Your task to perform on an android device: Open Google Chrome and click the shortcut for Amazon.com Image 0: 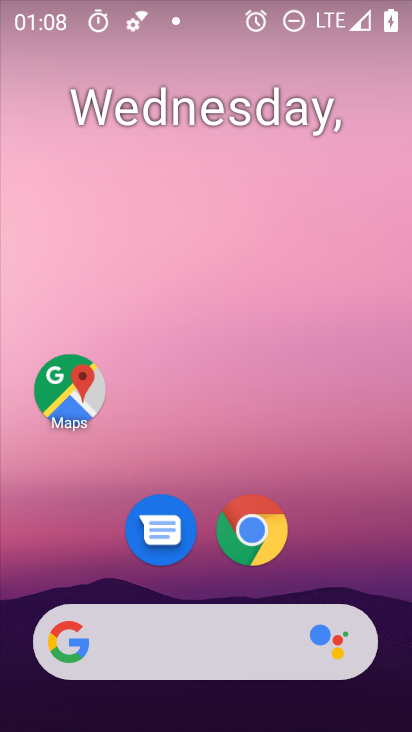
Step 0: drag from (335, 619) to (382, 6)
Your task to perform on an android device: Open Google Chrome and click the shortcut for Amazon.com Image 1: 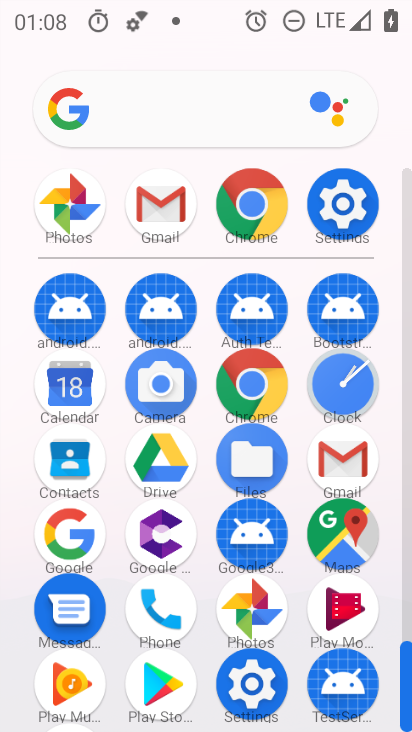
Step 1: click (237, 386)
Your task to perform on an android device: Open Google Chrome and click the shortcut for Amazon.com Image 2: 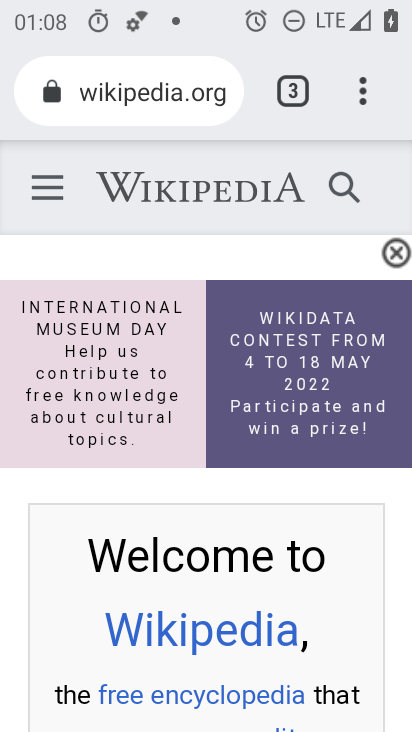
Step 2: click (294, 80)
Your task to perform on an android device: Open Google Chrome and click the shortcut for Amazon.com Image 3: 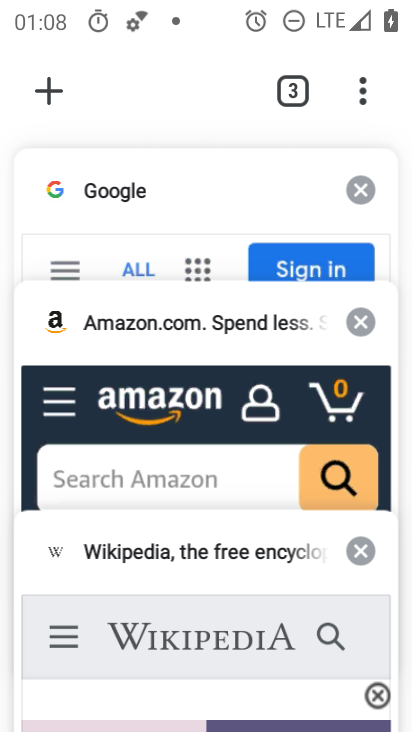
Step 3: click (187, 368)
Your task to perform on an android device: Open Google Chrome and click the shortcut for Amazon.com Image 4: 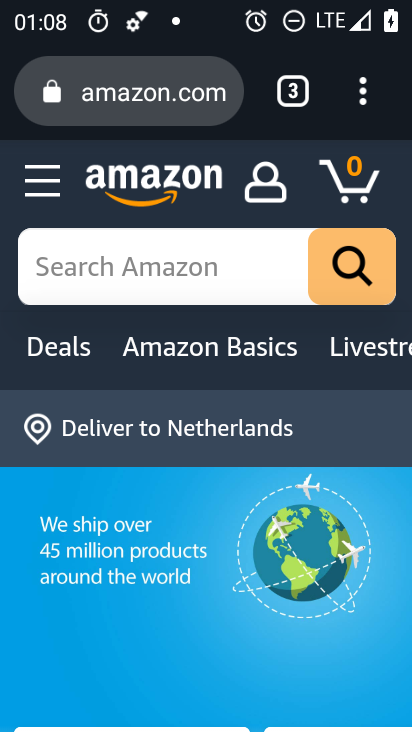
Step 4: click (364, 88)
Your task to perform on an android device: Open Google Chrome and click the shortcut for Amazon.com Image 5: 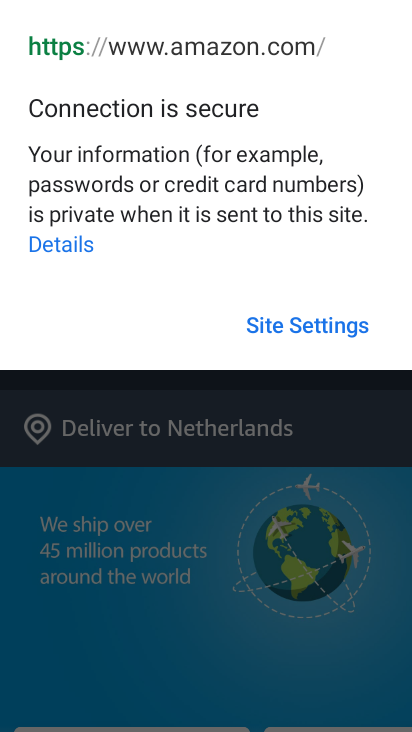
Step 5: drag from (405, 418) to (400, 311)
Your task to perform on an android device: Open Google Chrome and click the shortcut for Amazon.com Image 6: 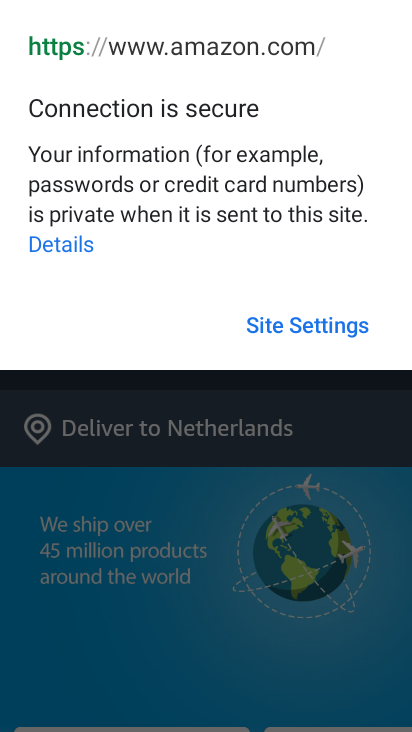
Step 6: drag from (381, 491) to (387, 99)
Your task to perform on an android device: Open Google Chrome and click the shortcut for Amazon.com Image 7: 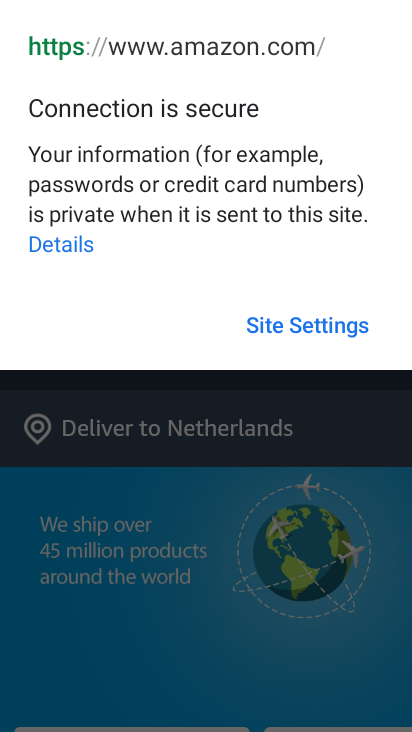
Step 7: click (340, 445)
Your task to perform on an android device: Open Google Chrome and click the shortcut for Amazon.com Image 8: 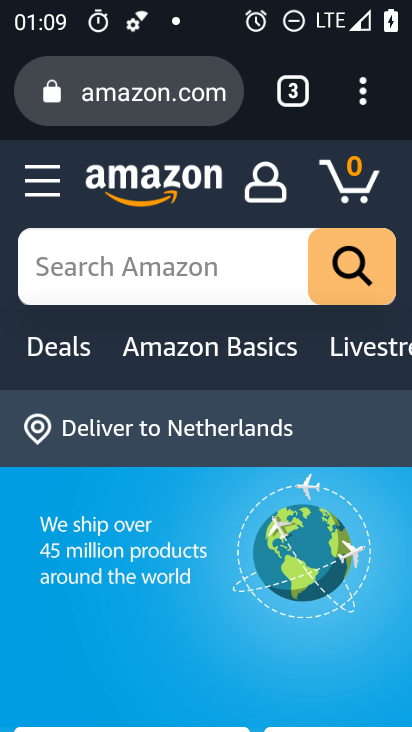
Step 8: drag from (340, 427) to (381, 157)
Your task to perform on an android device: Open Google Chrome and click the shortcut for Amazon.com Image 9: 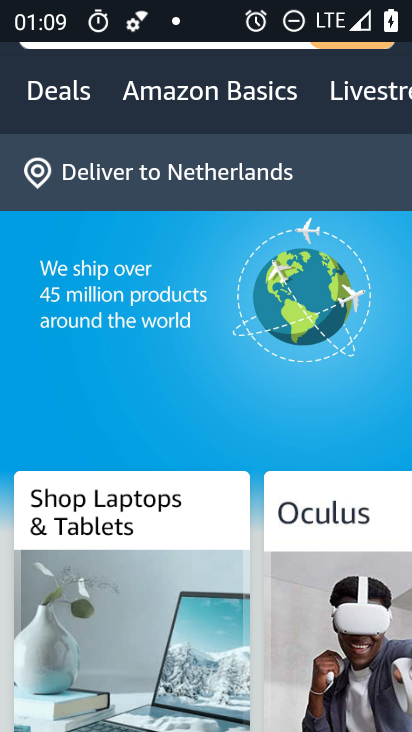
Step 9: drag from (372, 216) to (278, 205)
Your task to perform on an android device: Open Google Chrome and click the shortcut for Amazon.com Image 10: 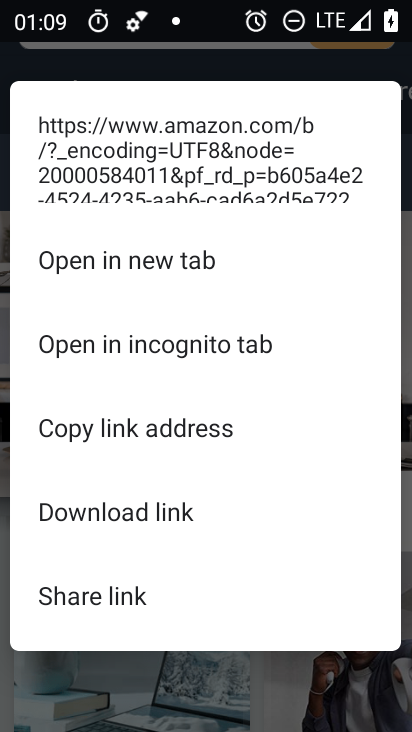
Step 10: drag from (262, 228) to (292, 115)
Your task to perform on an android device: Open Google Chrome and click the shortcut for Amazon.com Image 11: 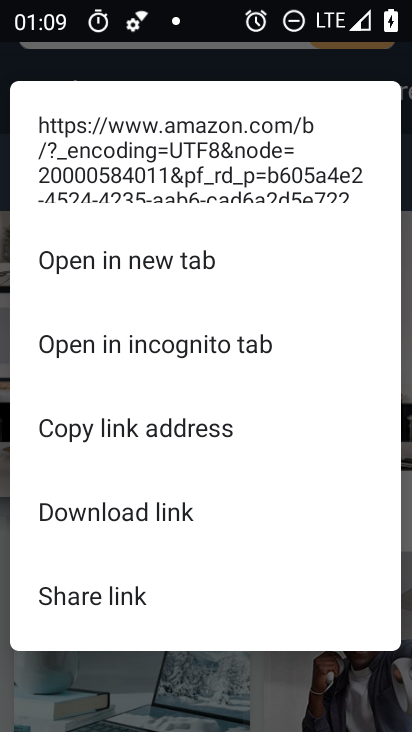
Step 11: drag from (292, 115) to (298, 243)
Your task to perform on an android device: Open Google Chrome and click the shortcut for Amazon.com Image 12: 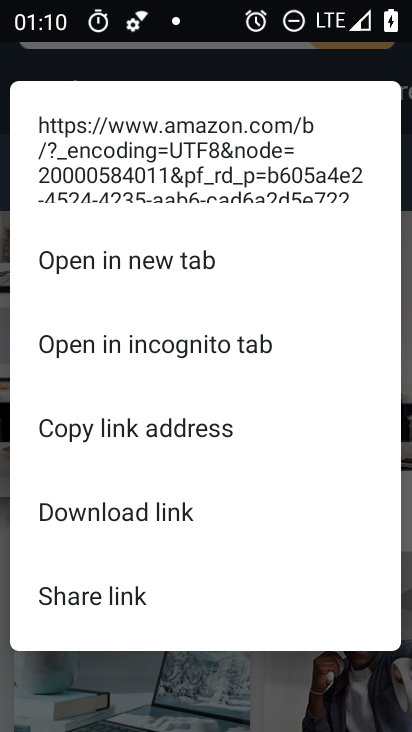
Step 12: press home button
Your task to perform on an android device: Open Google Chrome and click the shortcut for Amazon.com Image 13: 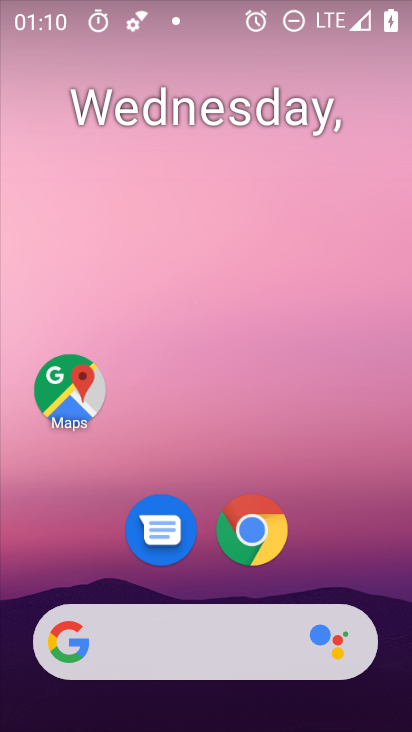
Step 13: drag from (301, 638) to (376, 38)
Your task to perform on an android device: Open Google Chrome and click the shortcut for Amazon.com Image 14: 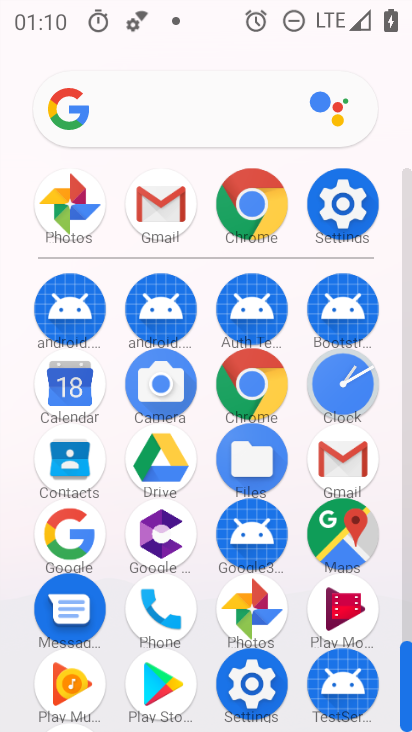
Step 14: click (256, 374)
Your task to perform on an android device: Open Google Chrome and click the shortcut for Amazon.com Image 15: 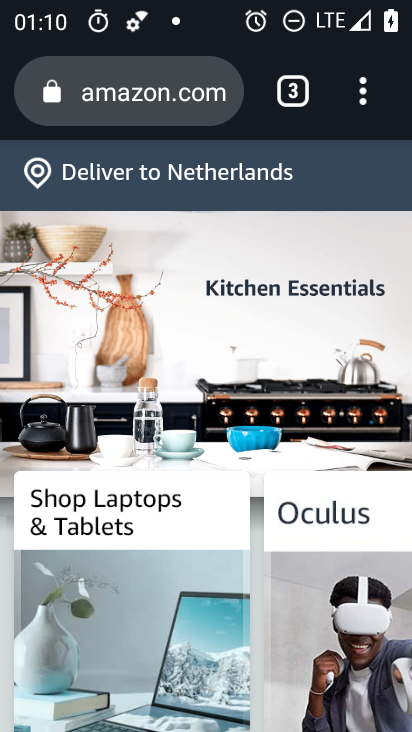
Step 15: click (354, 110)
Your task to perform on an android device: Open Google Chrome and click the shortcut for Amazon.com Image 16: 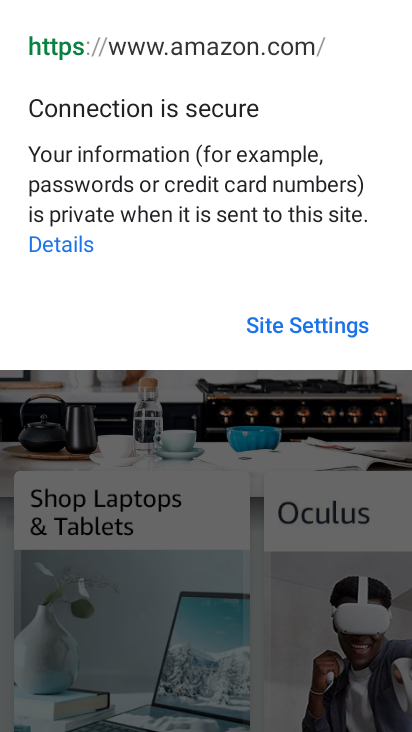
Step 16: click (314, 467)
Your task to perform on an android device: Open Google Chrome and click the shortcut for Amazon.com Image 17: 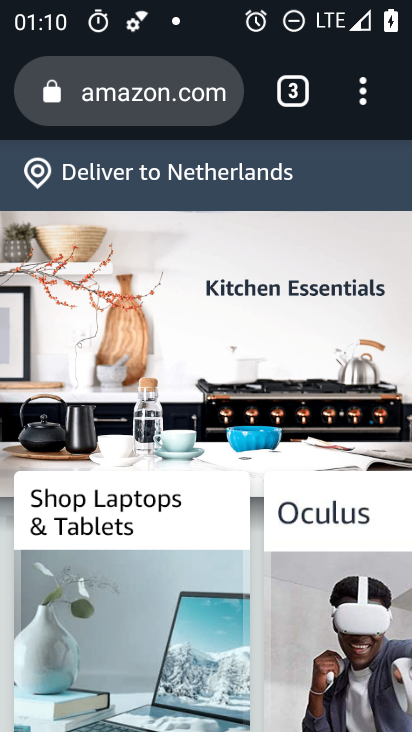
Step 17: task complete